Your task to perform on an android device: refresh tabs in the chrome app Image 0: 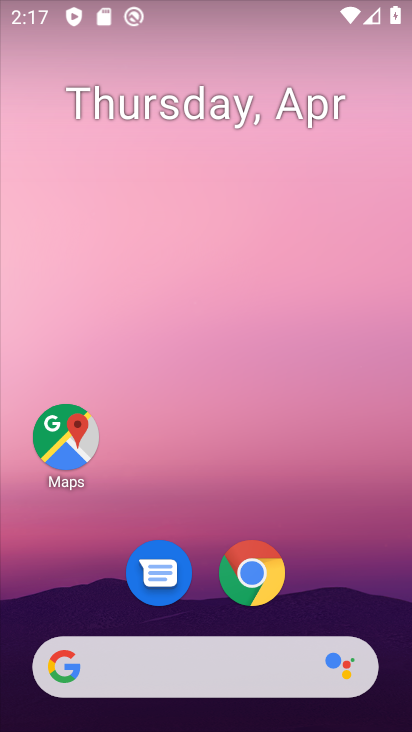
Step 0: drag from (333, 594) to (288, 127)
Your task to perform on an android device: refresh tabs in the chrome app Image 1: 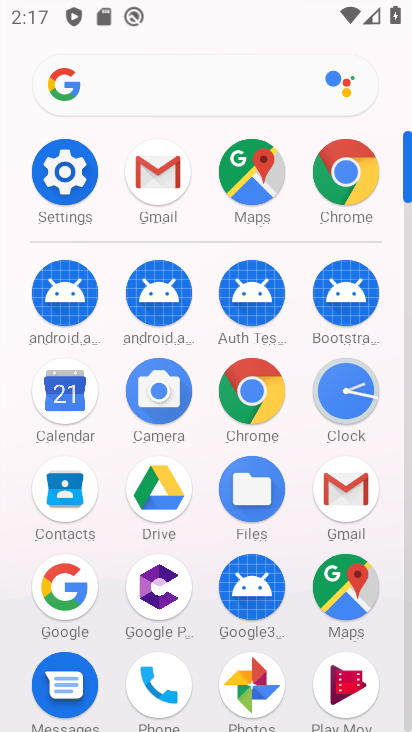
Step 1: click (257, 390)
Your task to perform on an android device: refresh tabs in the chrome app Image 2: 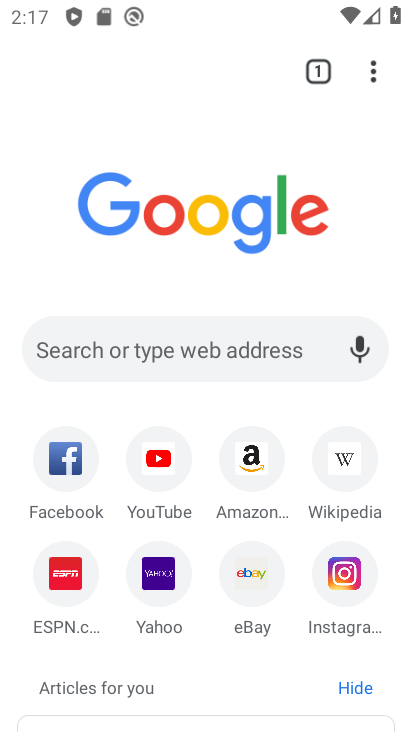
Step 2: click (374, 62)
Your task to perform on an android device: refresh tabs in the chrome app Image 3: 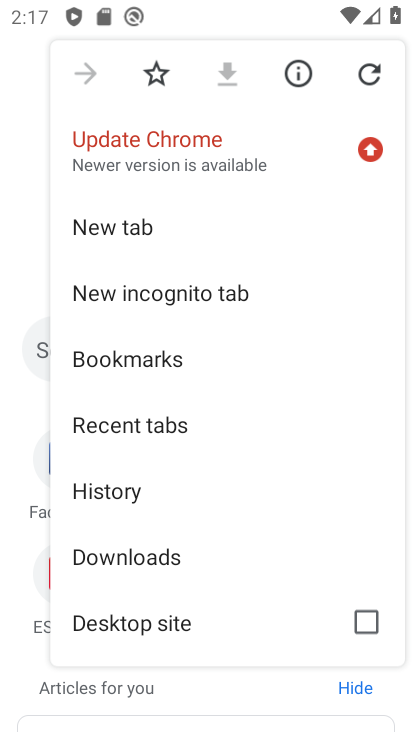
Step 3: click (372, 72)
Your task to perform on an android device: refresh tabs in the chrome app Image 4: 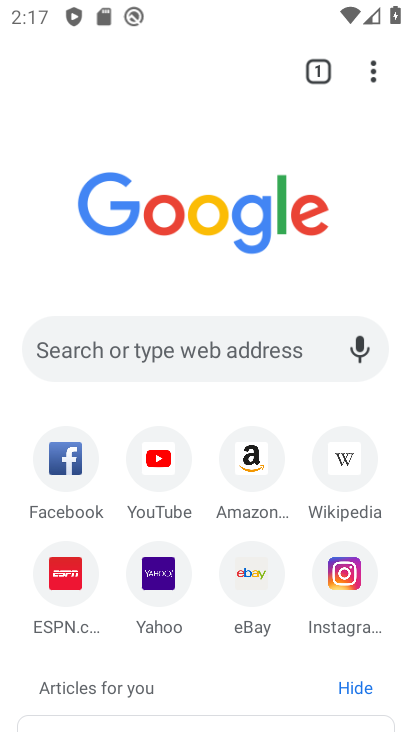
Step 4: task complete